Your task to perform on an android device: add a contact Image 0: 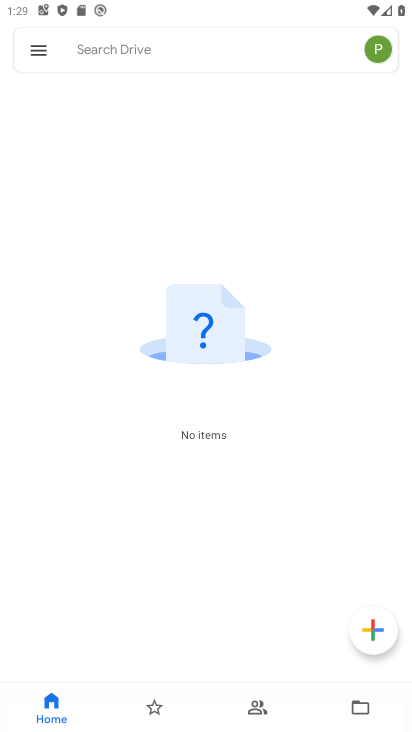
Step 0: press home button
Your task to perform on an android device: add a contact Image 1: 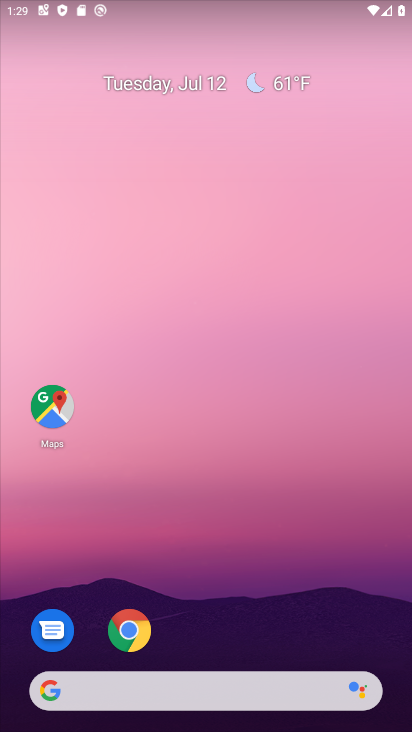
Step 1: drag from (208, 629) to (215, 159)
Your task to perform on an android device: add a contact Image 2: 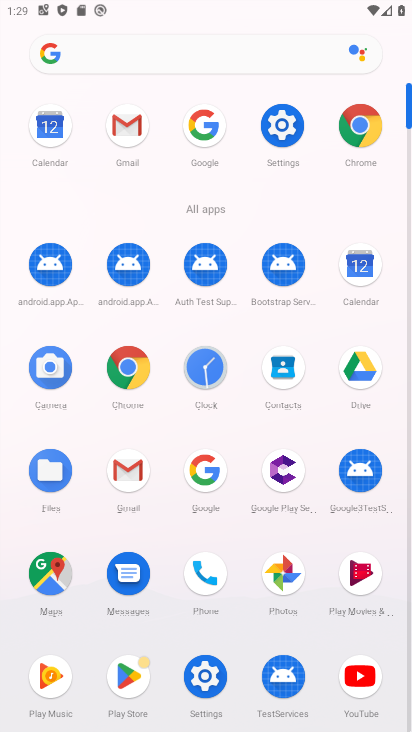
Step 2: click (303, 363)
Your task to perform on an android device: add a contact Image 3: 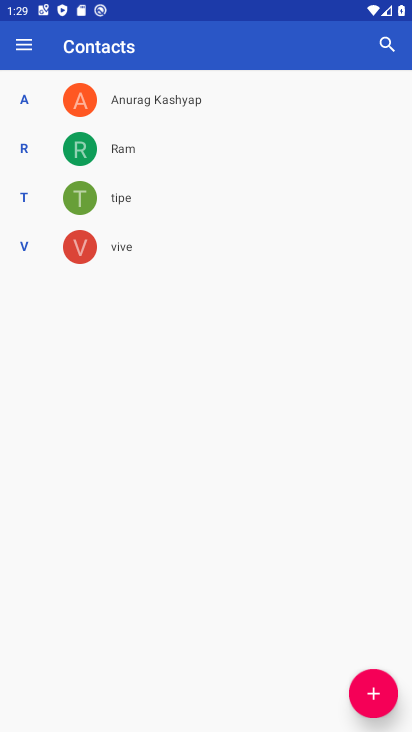
Step 3: click (380, 692)
Your task to perform on an android device: add a contact Image 4: 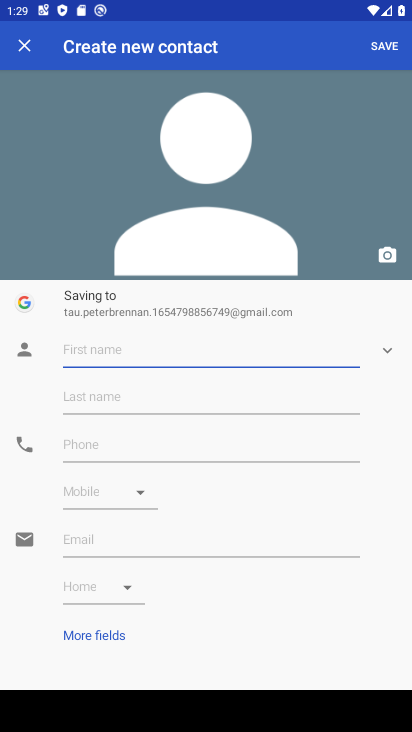
Step 4: type "hfgh"
Your task to perform on an android device: add a contact Image 5: 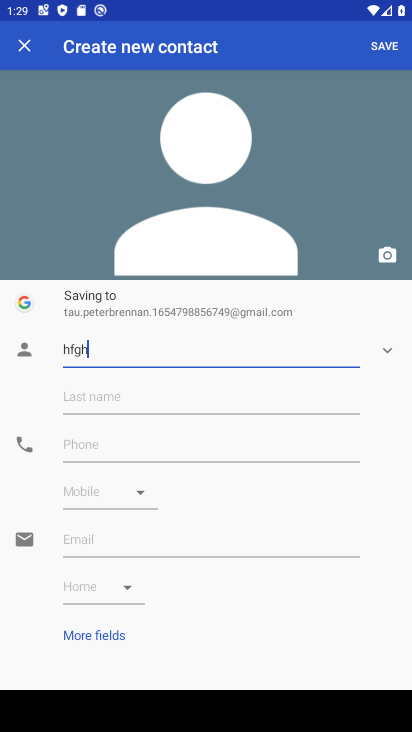
Step 5: click (94, 448)
Your task to perform on an android device: add a contact Image 6: 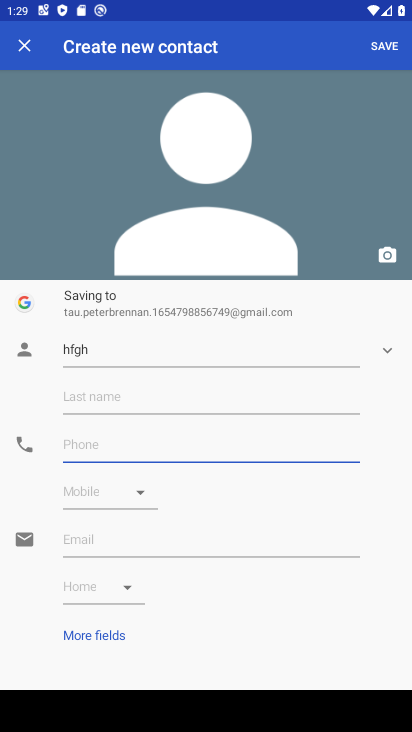
Step 6: type "8766575465"
Your task to perform on an android device: add a contact Image 7: 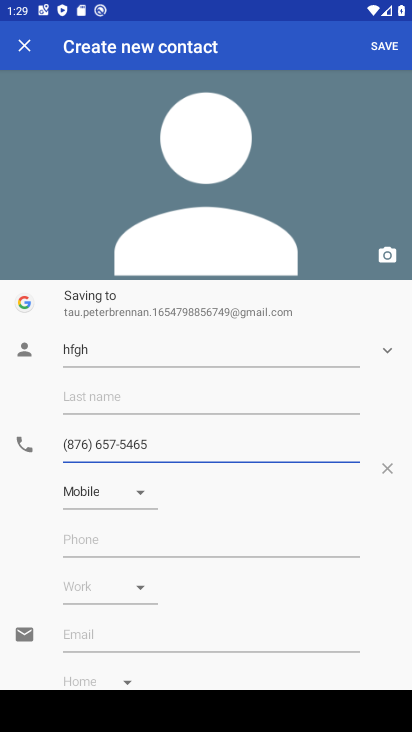
Step 7: click (365, 47)
Your task to perform on an android device: add a contact Image 8: 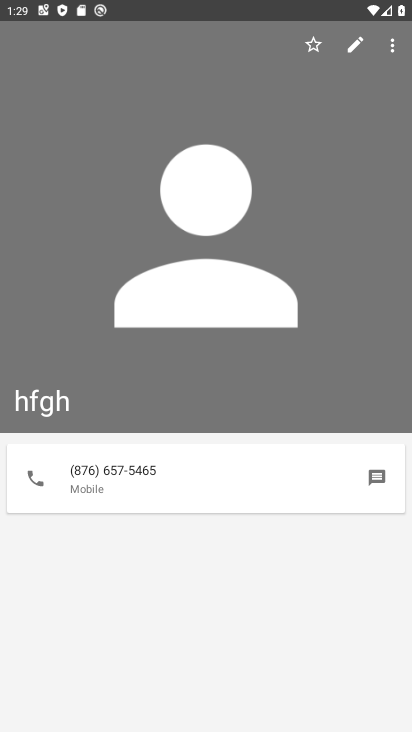
Step 8: task complete